Your task to perform on an android device: Search for Mexican restaurants on Maps Image 0: 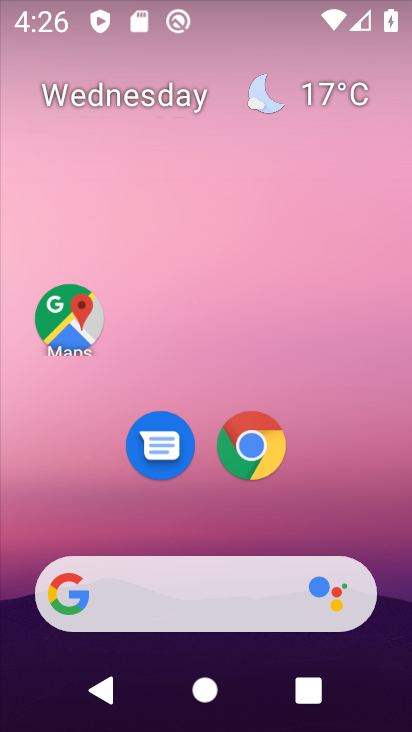
Step 0: click (89, 332)
Your task to perform on an android device: Search for Mexican restaurants on Maps Image 1: 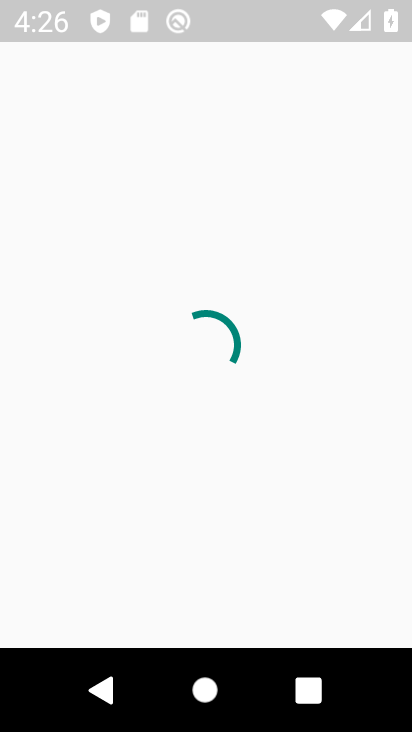
Step 1: click (51, 97)
Your task to perform on an android device: Search for Mexican restaurants on Maps Image 2: 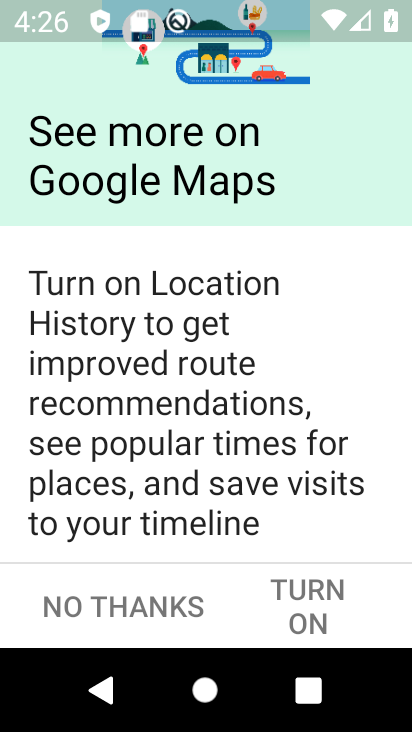
Step 2: click (115, 604)
Your task to perform on an android device: Search for Mexican restaurants on Maps Image 3: 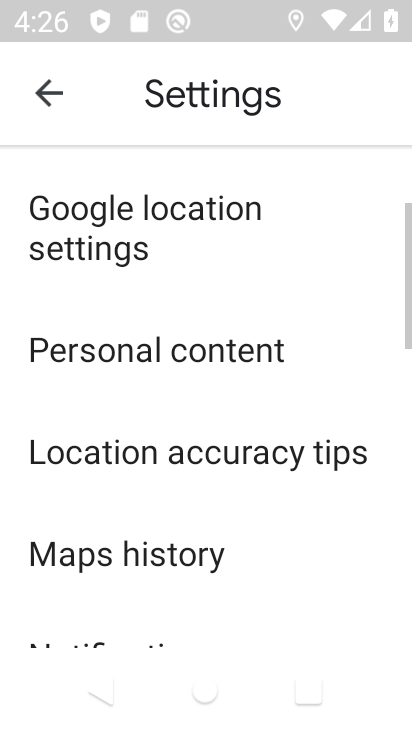
Step 3: click (47, 91)
Your task to perform on an android device: Search for Mexican restaurants on Maps Image 4: 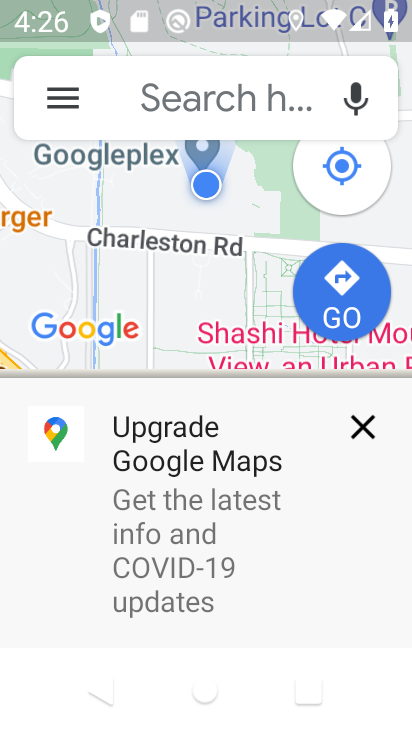
Step 4: click (356, 428)
Your task to perform on an android device: Search for Mexican restaurants on Maps Image 5: 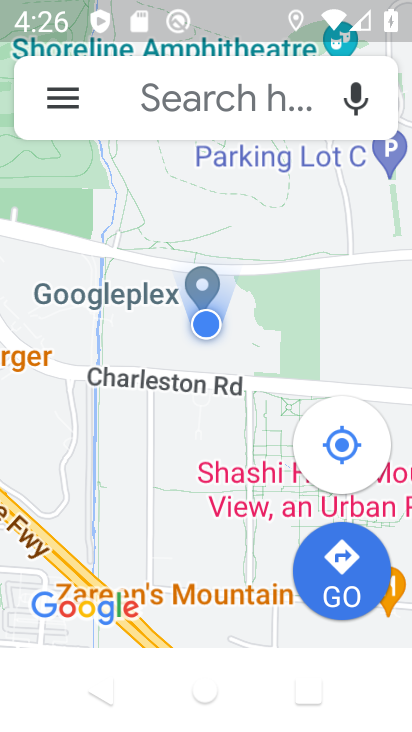
Step 5: click (197, 113)
Your task to perform on an android device: Search for Mexican restaurants on Maps Image 6: 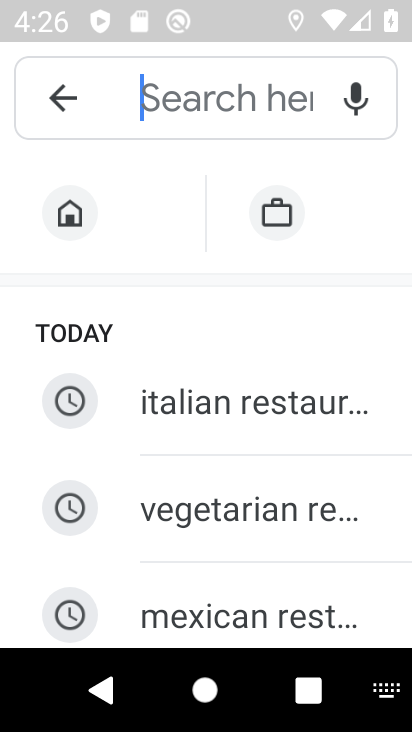
Step 6: click (237, 615)
Your task to perform on an android device: Search for Mexican restaurants on Maps Image 7: 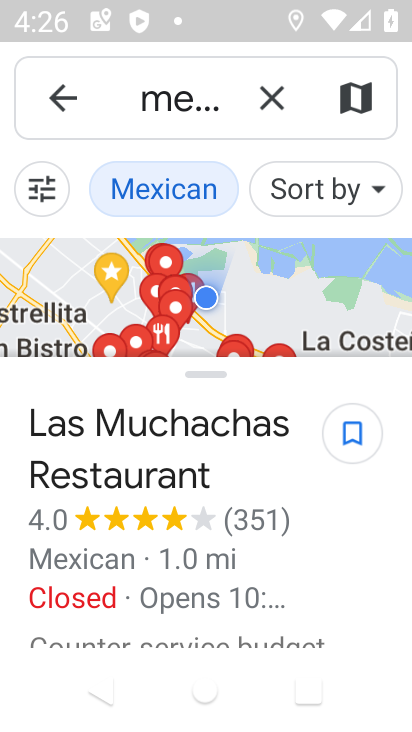
Step 7: task complete